Your task to perform on an android device: Go to wifi settings Image 0: 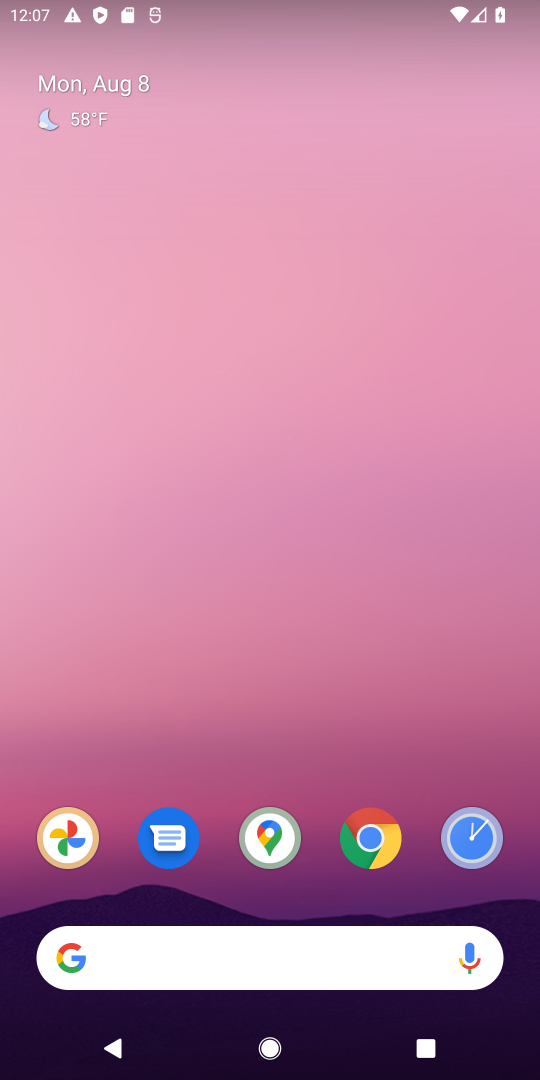
Step 0: drag from (332, 886) to (299, 12)
Your task to perform on an android device: Go to wifi settings Image 1: 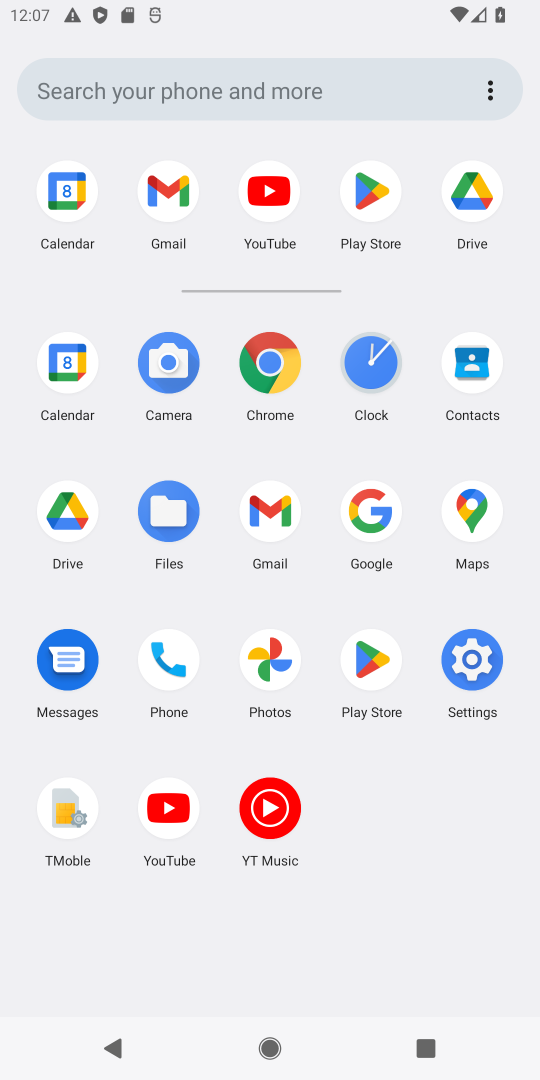
Step 1: click (471, 660)
Your task to perform on an android device: Go to wifi settings Image 2: 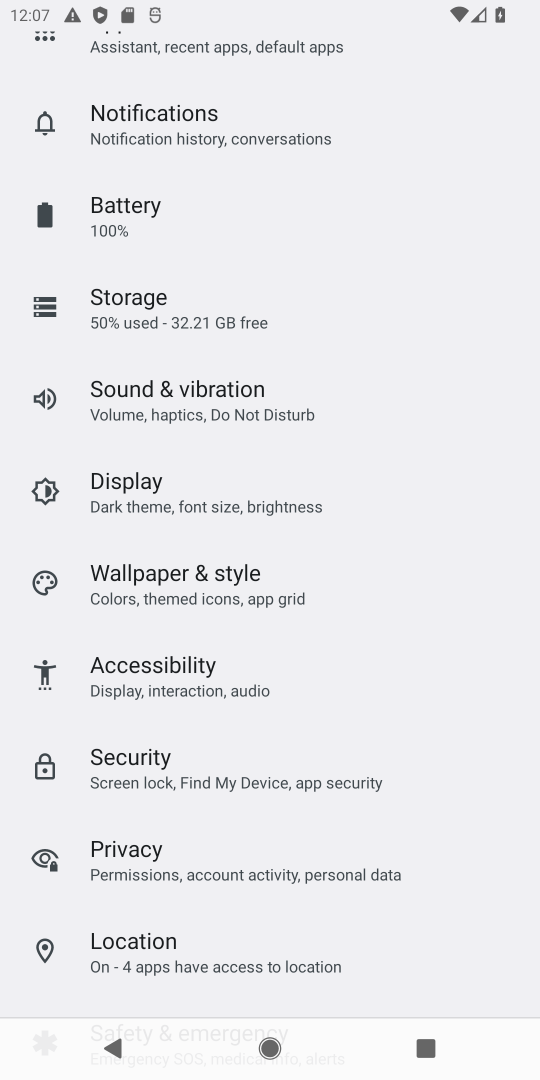
Step 2: drag from (367, 187) to (301, 933)
Your task to perform on an android device: Go to wifi settings Image 3: 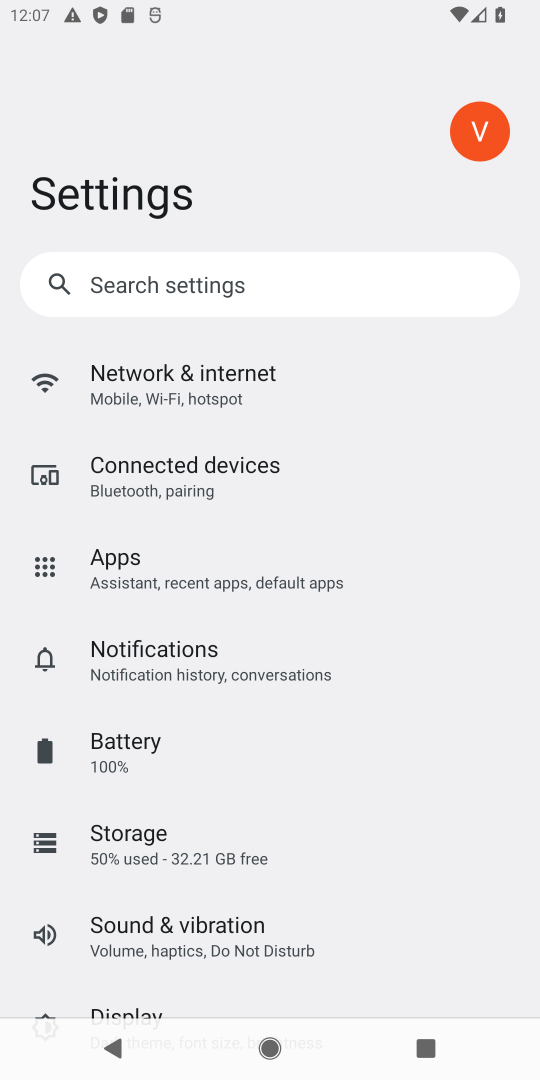
Step 3: click (164, 384)
Your task to perform on an android device: Go to wifi settings Image 4: 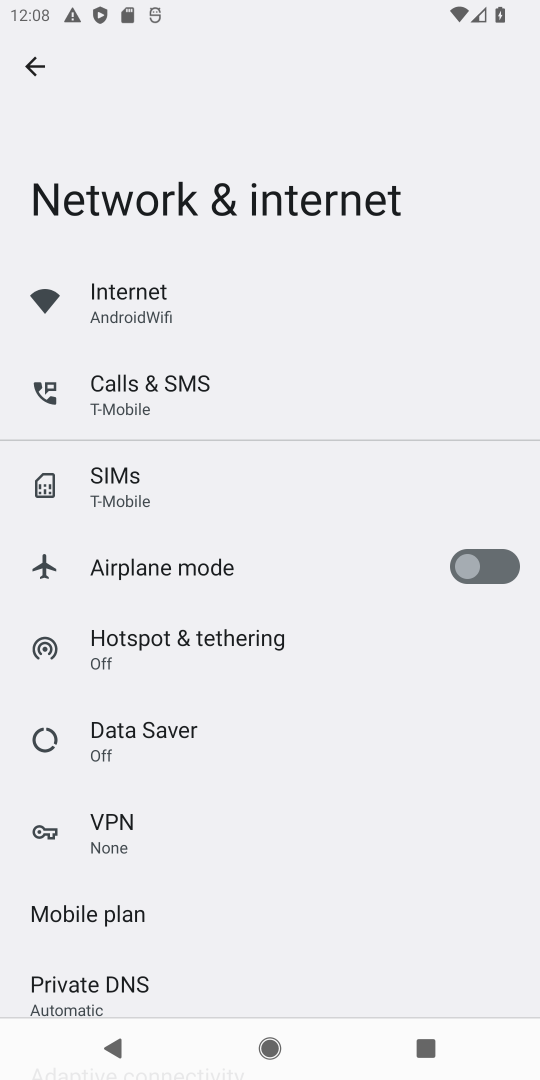
Step 4: click (133, 309)
Your task to perform on an android device: Go to wifi settings Image 5: 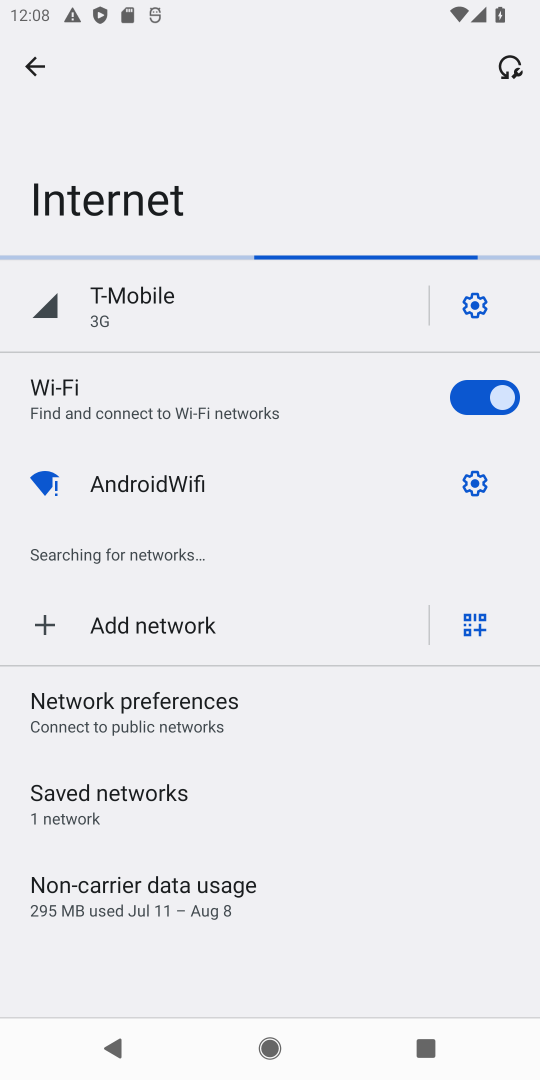
Step 5: click (139, 481)
Your task to perform on an android device: Go to wifi settings Image 6: 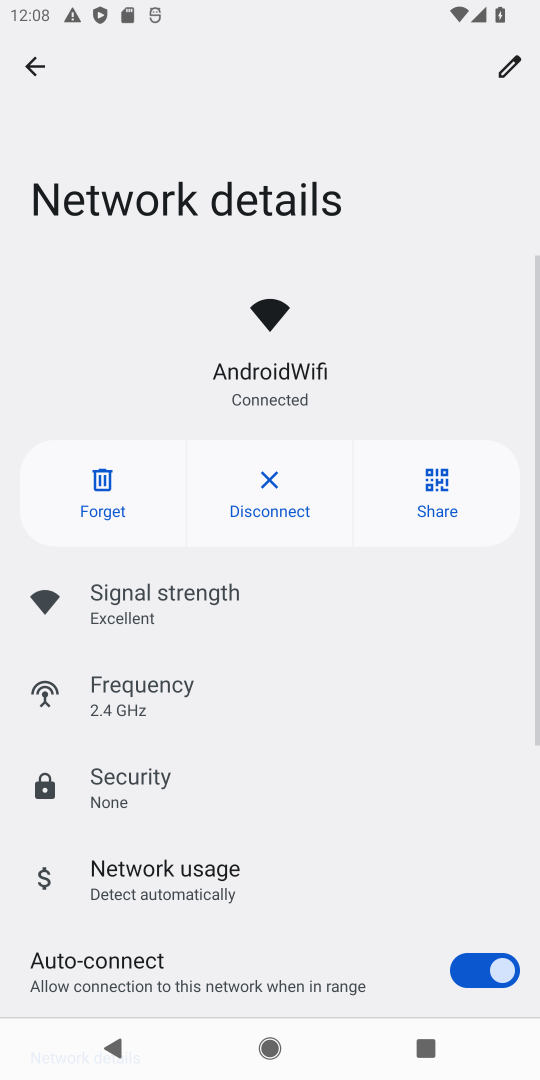
Step 6: task complete